Your task to perform on an android device: add a contact in the contacts app Image 0: 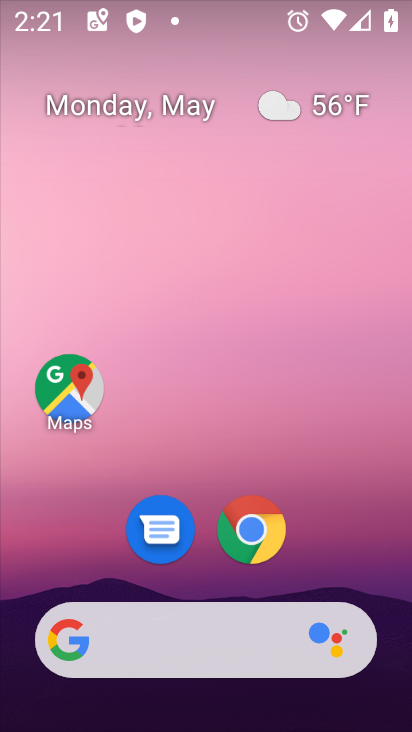
Step 0: drag from (327, 559) to (326, 47)
Your task to perform on an android device: add a contact in the contacts app Image 1: 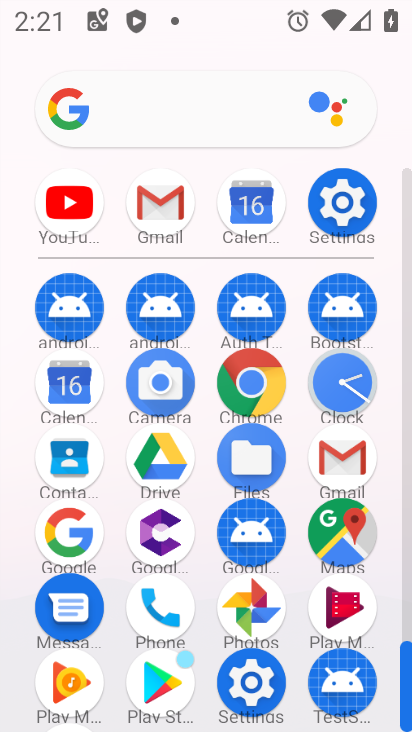
Step 1: click (67, 464)
Your task to perform on an android device: add a contact in the contacts app Image 2: 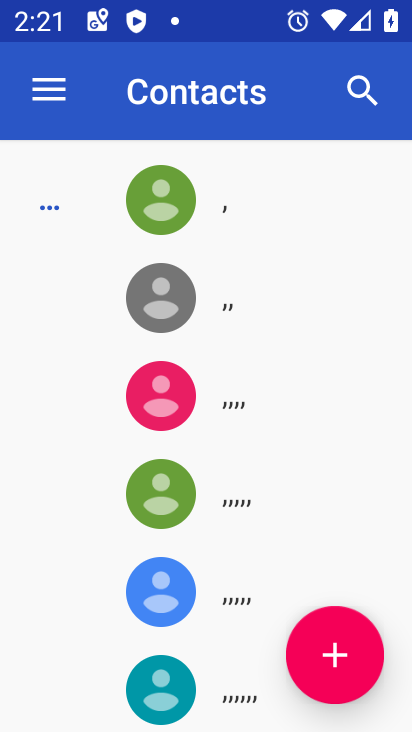
Step 2: click (328, 662)
Your task to perform on an android device: add a contact in the contacts app Image 3: 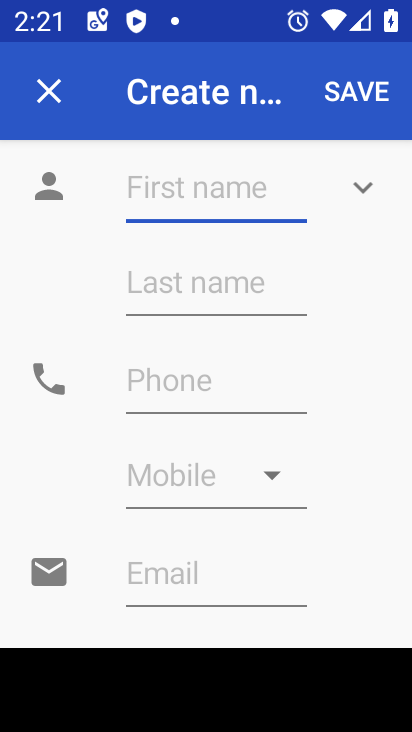
Step 3: type "tgvbhyrfcnjiu"
Your task to perform on an android device: add a contact in the contacts app Image 4: 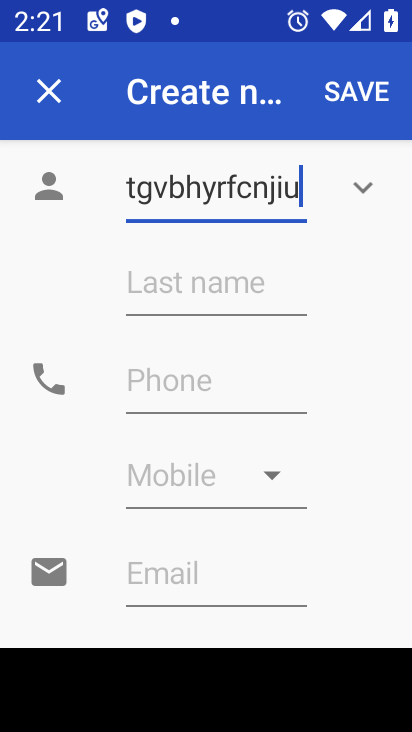
Step 4: click (195, 386)
Your task to perform on an android device: add a contact in the contacts app Image 5: 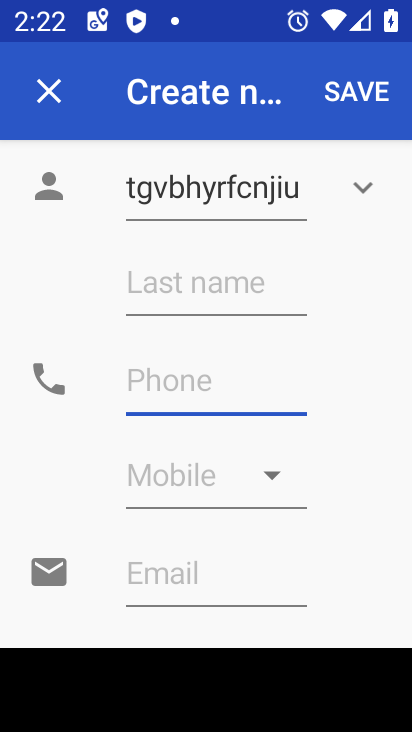
Step 5: type "9876543210"
Your task to perform on an android device: add a contact in the contacts app Image 6: 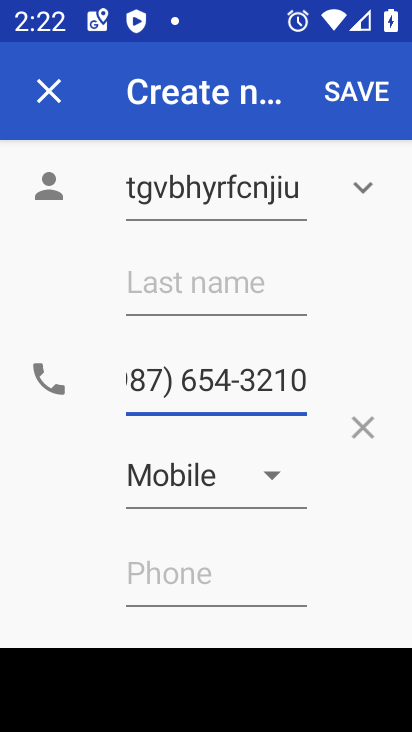
Step 6: click (371, 96)
Your task to perform on an android device: add a contact in the contacts app Image 7: 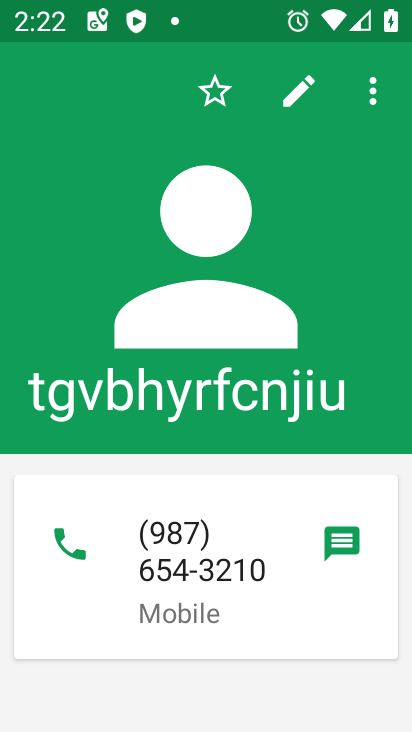
Step 7: task complete